Your task to perform on an android device: What's on my calendar today? Image 0: 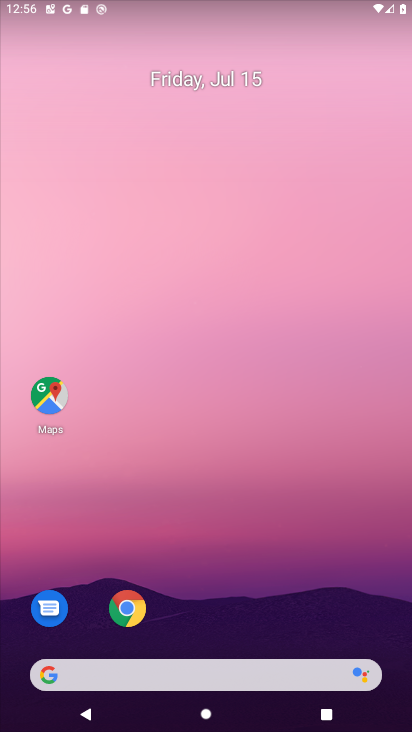
Step 0: drag from (265, 558) to (215, 212)
Your task to perform on an android device: What's on my calendar today? Image 1: 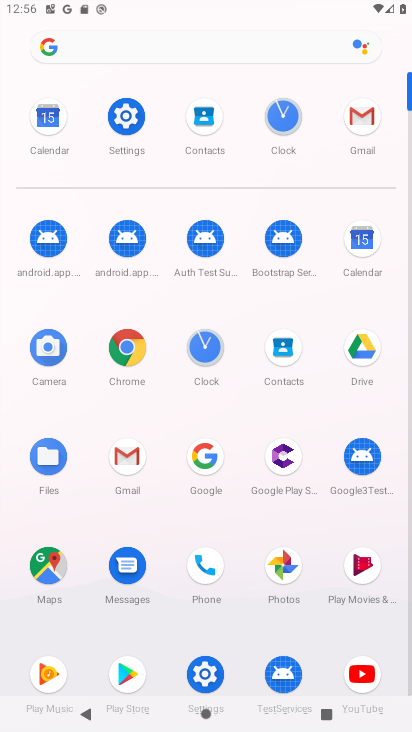
Step 1: click (360, 228)
Your task to perform on an android device: What's on my calendar today? Image 2: 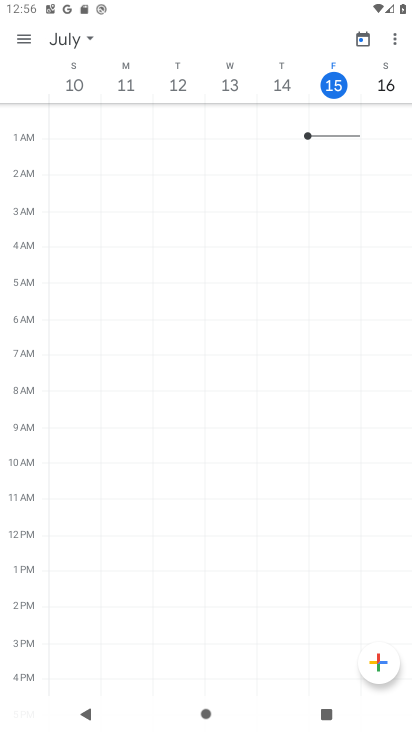
Step 2: click (332, 87)
Your task to perform on an android device: What's on my calendar today? Image 3: 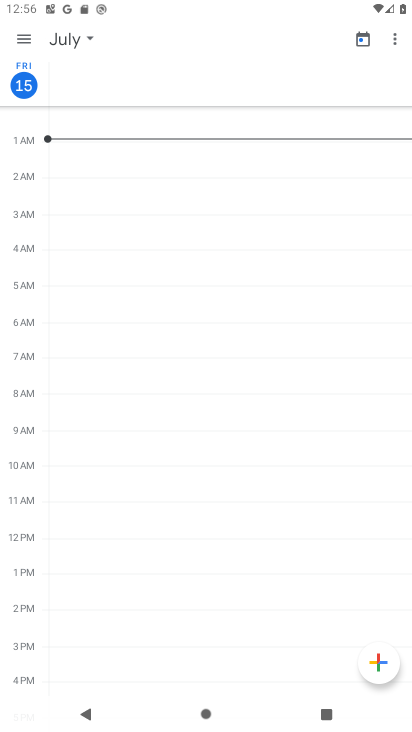
Step 3: task complete